Your task to perform on an android device: turn on translation in the chrome app Image 0: 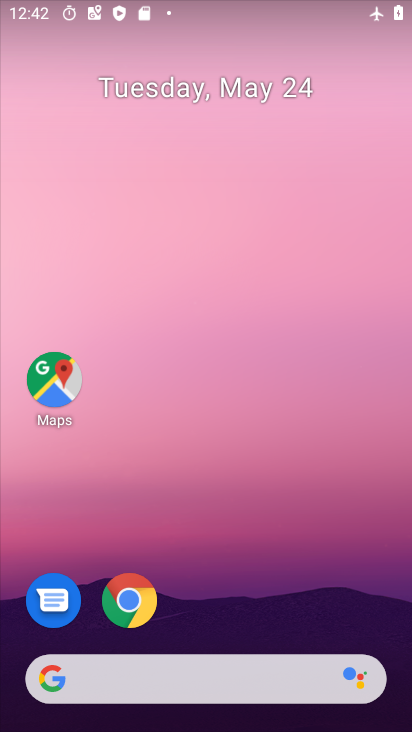
Step 0: drag from (262, 569) to (151, 103)
Your task to perform on an android device: turn on translation in the chrome app Image 1: 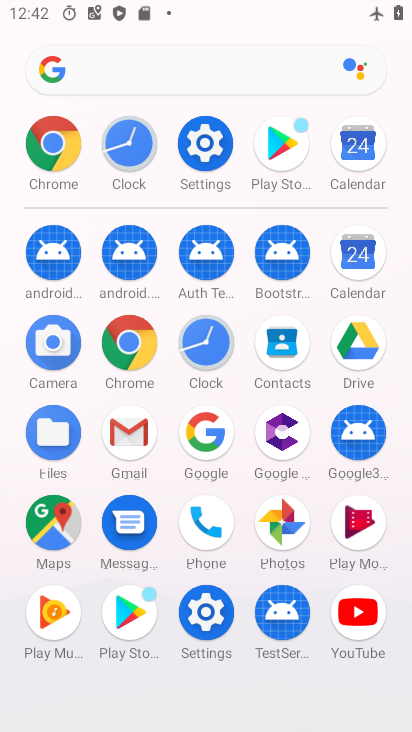
Step 1: click (136, 344)
Your task to perform on an android device: turn on translation in the chrome app Image 2: 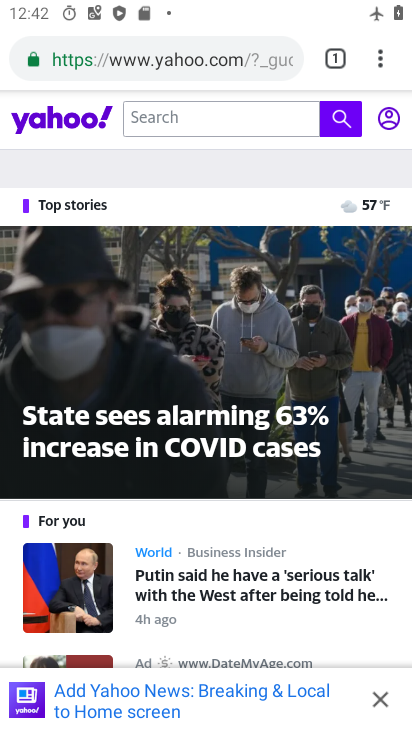
Step 2: click (379, 62)
Your task to perform on an android device: turn on translation in the chrome app Image 3: 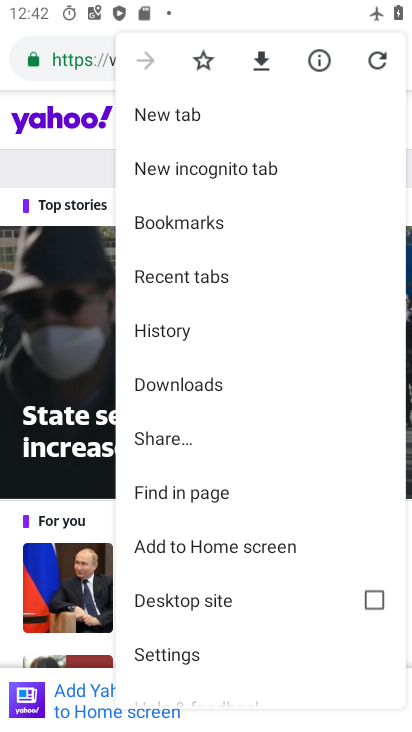
Step 3: click (179, 646)
Your task to perform on an android device: turn on translation in the chrome app Image 4: 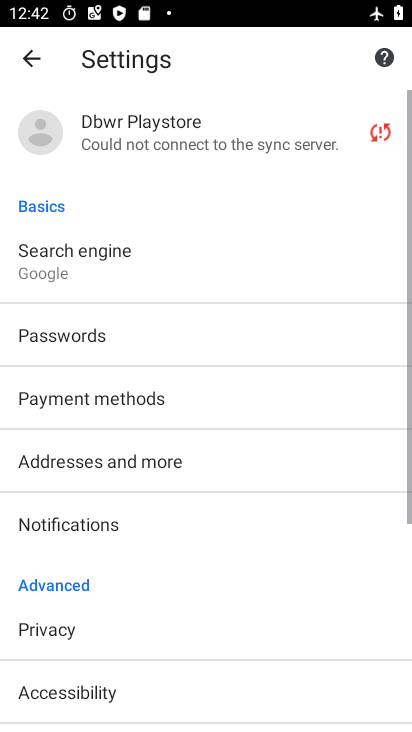
Step 4: drag from (178, 641) to (235, 129)
Your task to perform on an android device: turn on translation in the chrome app Image 5: 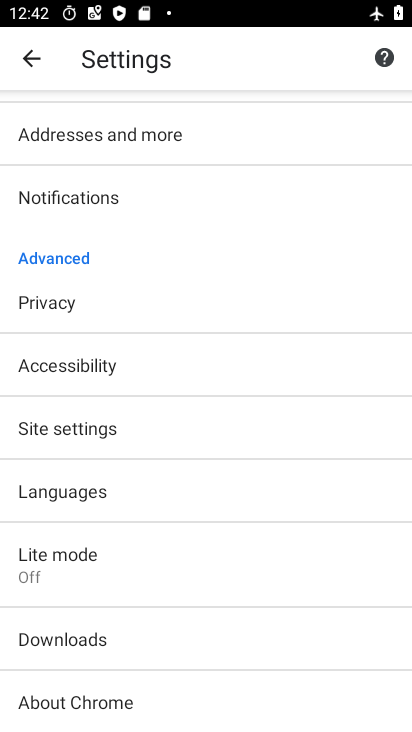
Step 5: click (145, 491)
Your task to perform on an android device: turn on translation in the chrome app Image 6: 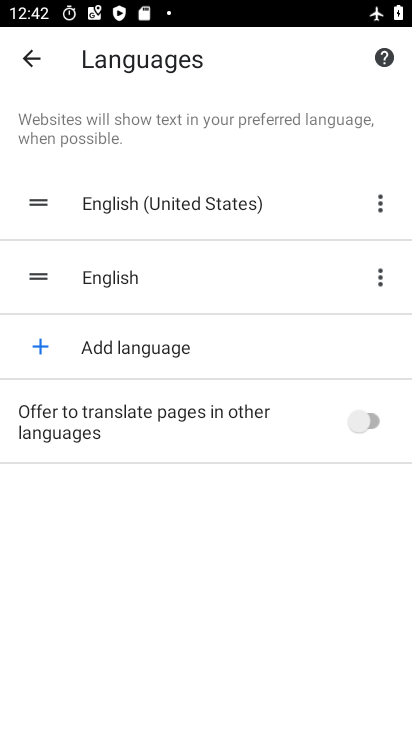
Step 6: click (378, 407)
Your task to perform on an android device: turn on translation in the chrome app Image 7: 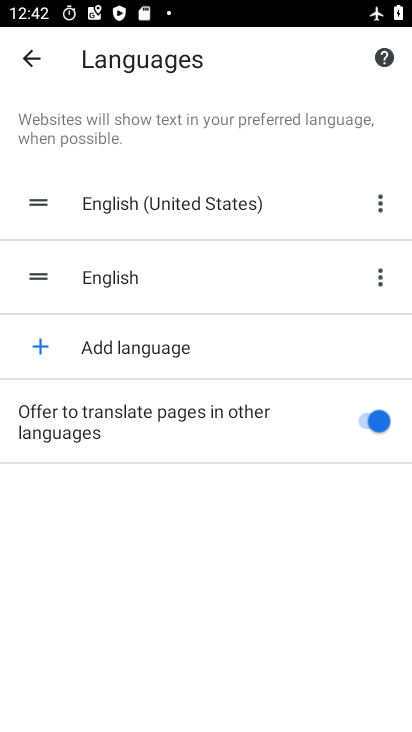
Step 7: task complete